Your task to perform on an android device: turn on the 24-hour format for clock Image 0: 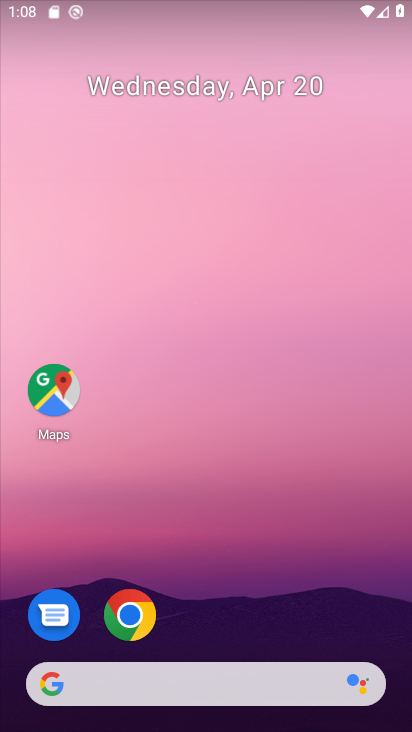
Step 0: drag from (382, 456) to (375, 140)
Your task to perform on an android device: turn on the 24-hour format for clock Image 1: 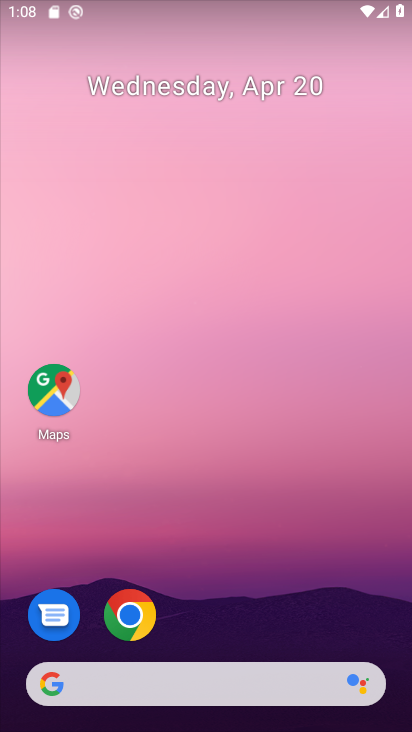
Step 1: drag from (395, 595) to (386, 220)
Your task to perform on an android device: turn on the 24-hour format for clock Image 2: 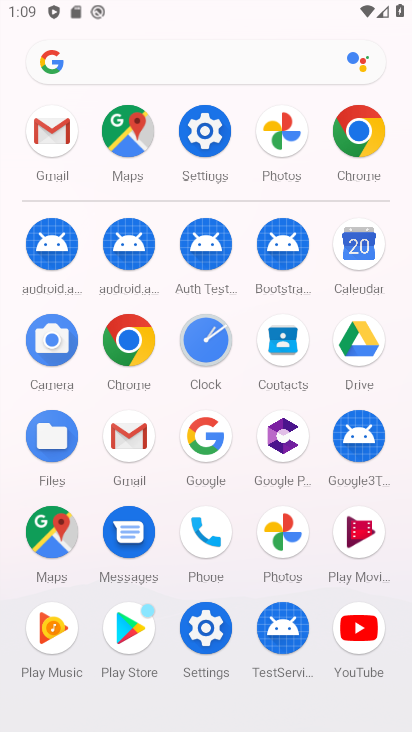
Step 2: click (205, 342)
Your task to perform on an android device: turn on the 24-hour format for clock Image 3: 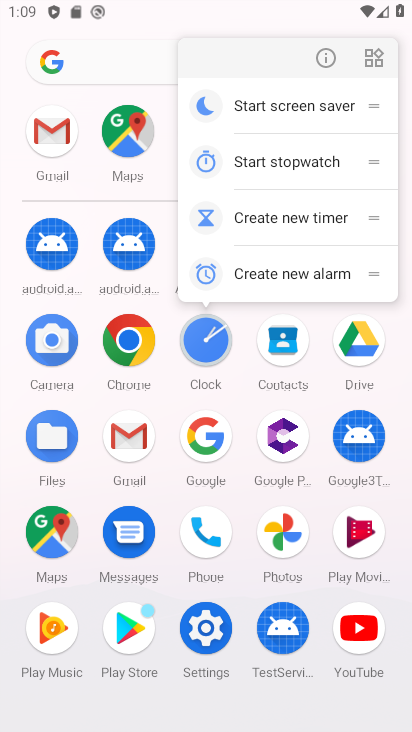
Step 3: click (195, 335)
Your task to perform on an android device: turn on the 24-hour format for clock Image 4: 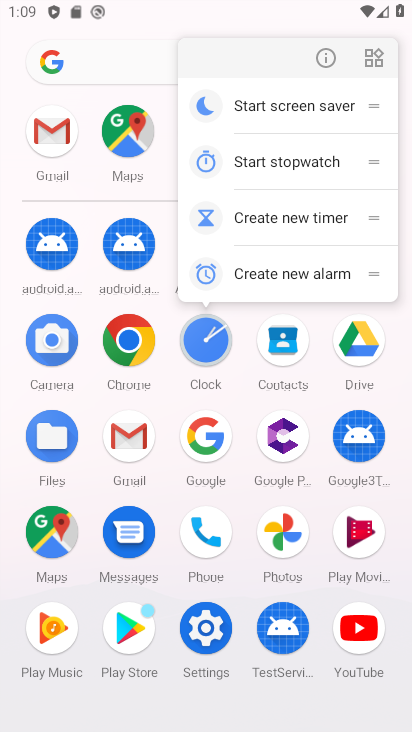
Step 4: click (195, 335)
Your task to perform on an android device: turn on the 24-hour format for clock Image 5: 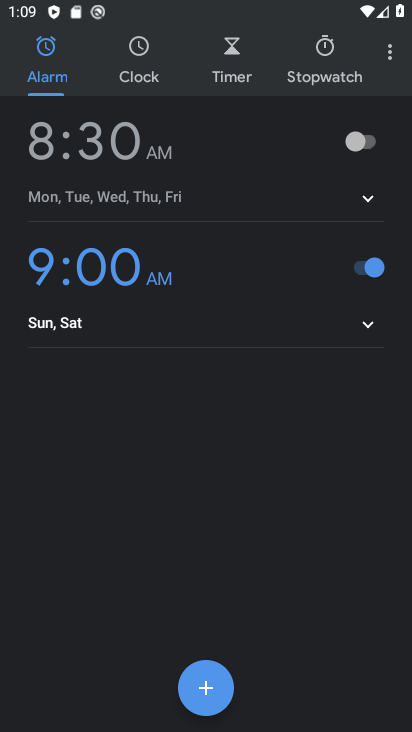
Step 5: click (384, 50)
Your task to perform on an android device: turn on the 24-hour format for clock Image 6: 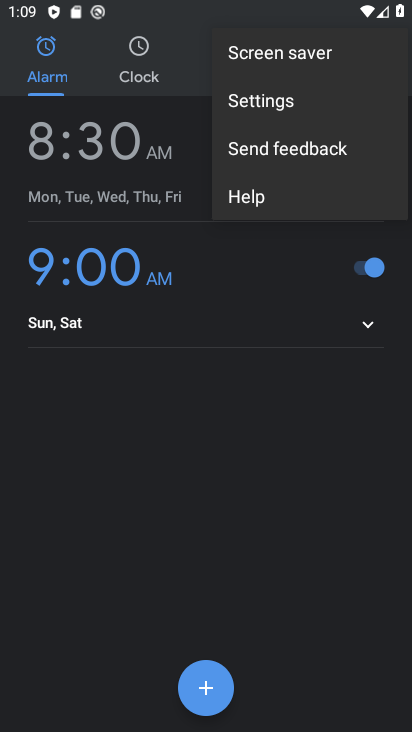
Step 6: click (271, 103)
Your task to perform on an android device: turn on the 24-hour format for clock Image 7: 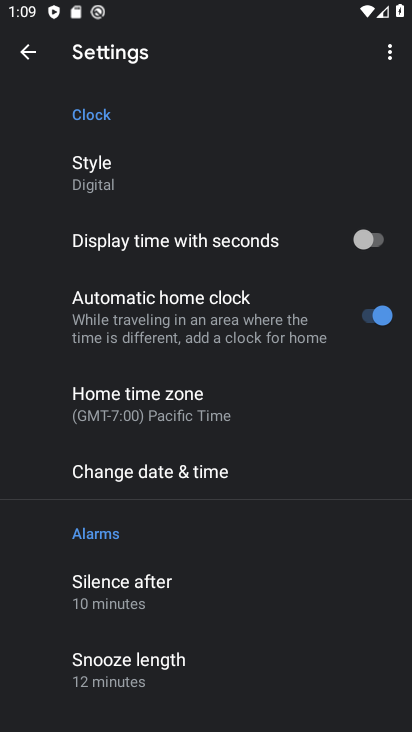
Step 7: click (142, 478)
Your task to perform on an android device: turn on the 24-hour format for clock Image 8: 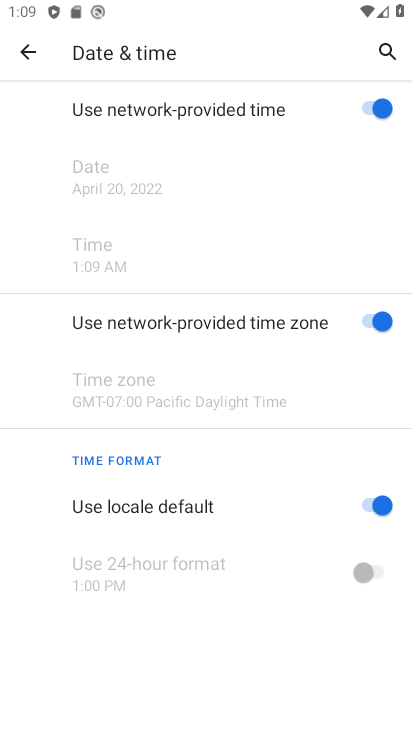
Step 8: click (368, 502)
Your task to perform on an android device: turn on the 24-hour format for clock Image 9: 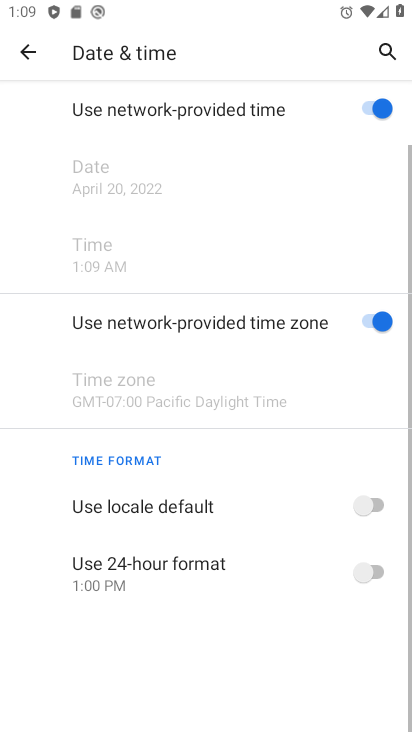
Step 9: click (376, 572)
Your task to perform on an android device: turn on the 24-hour format for clock Image 10: 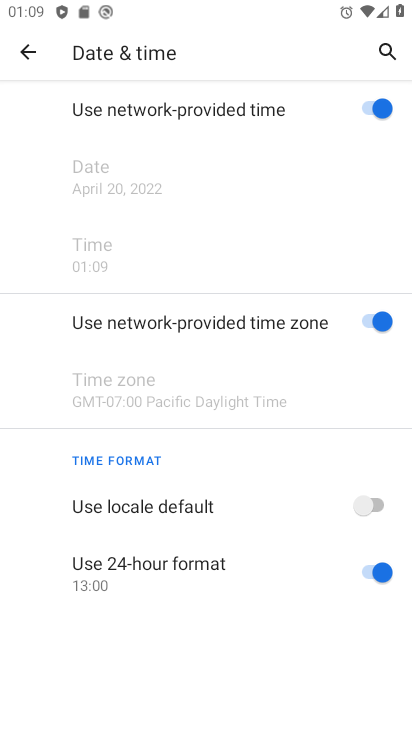
Step 10: task complete